Your task to perform on an android device: open chrome privacy settings Image 0: 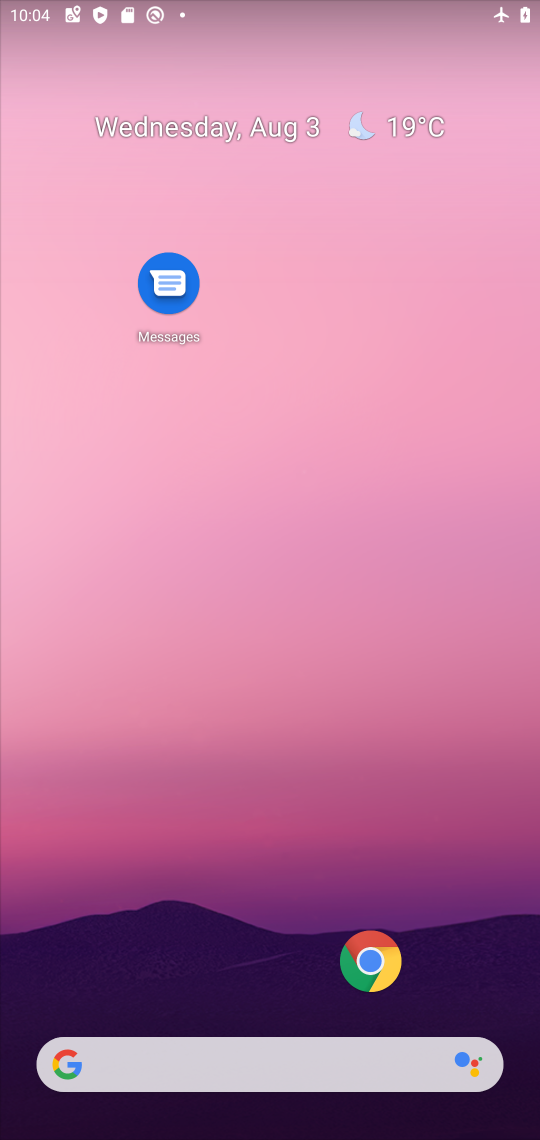
Step 0: click (377, 973)
Your task to perform on an android device: open chrome privacy settings Image 1: 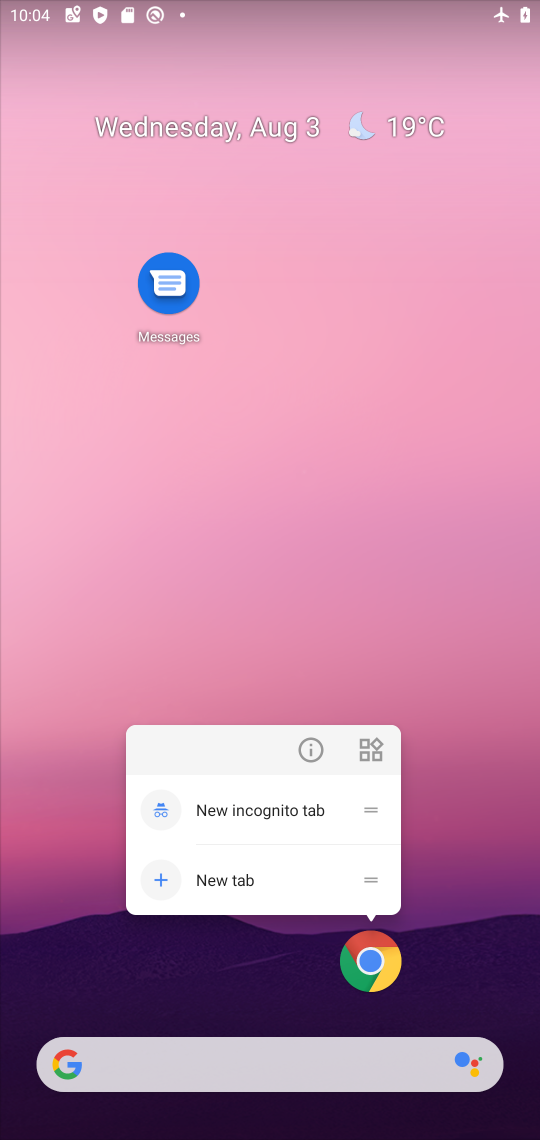
Step 1: click (364, 952)
Your task to perform on an android device: open chrome privacy settings Image 2: 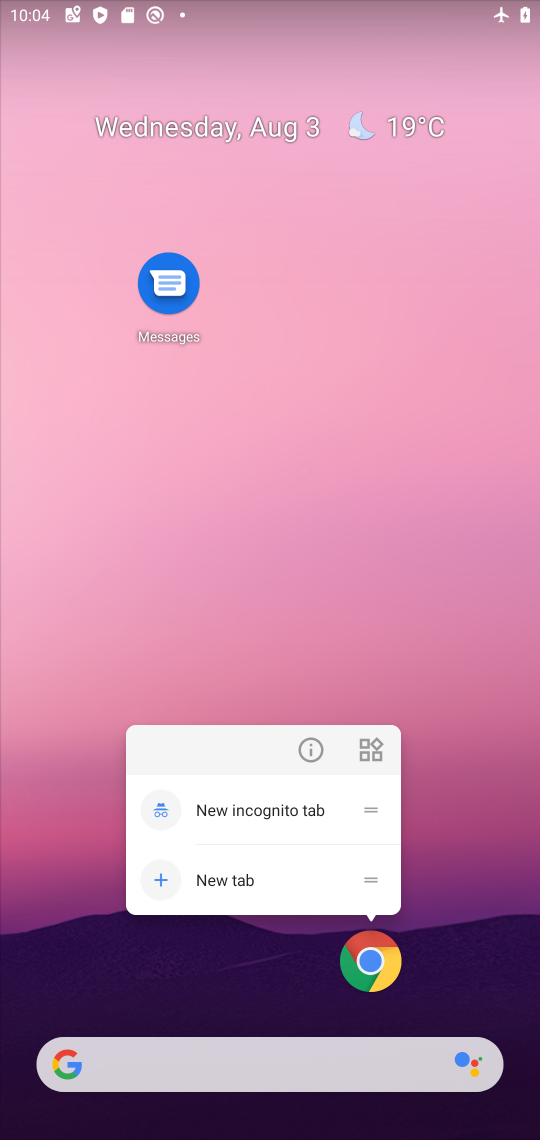
Step 2: click (364, 952)
Your task to perform on an android device: open chrome privacy settings Image 3: 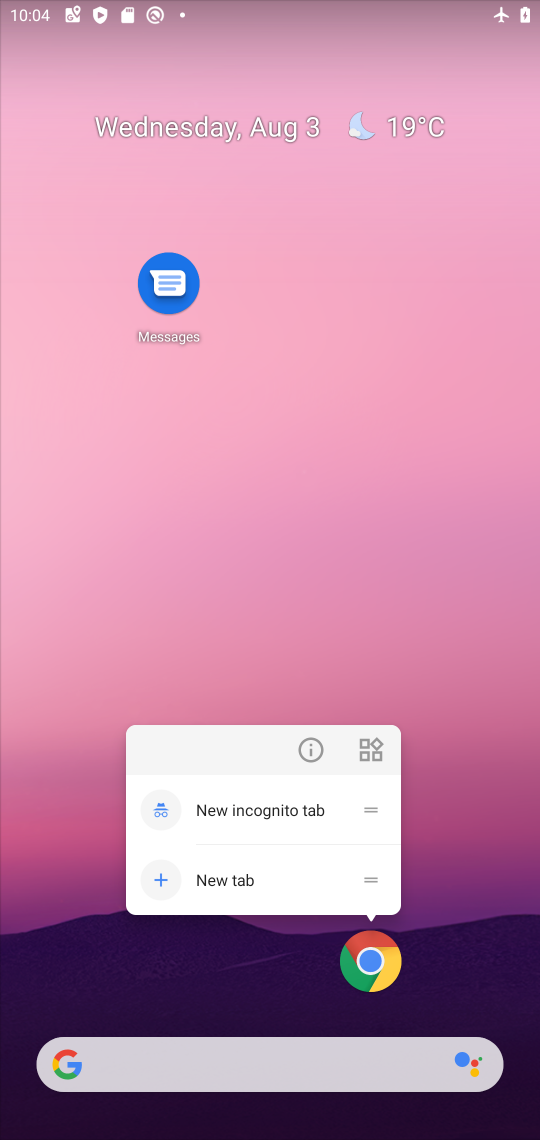
Step 3: click (424, 504)
Your task to perform on an android device: open chrome privacy settings Image 4: 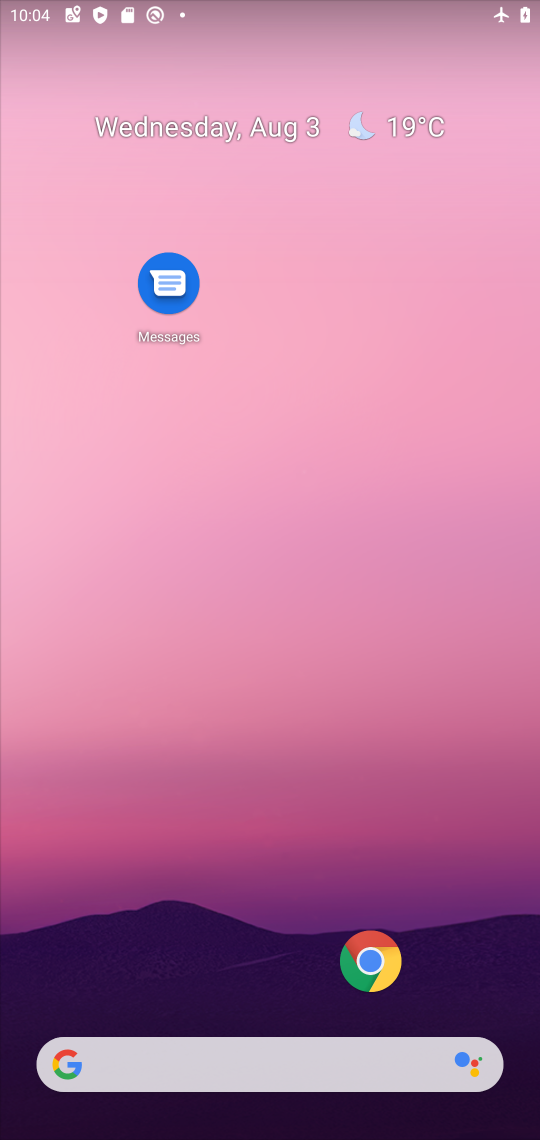
Step 4: drag from (298, 1025) to (407, 4)
Your task to perform on an android device: open chrome privacy settings Image 5: 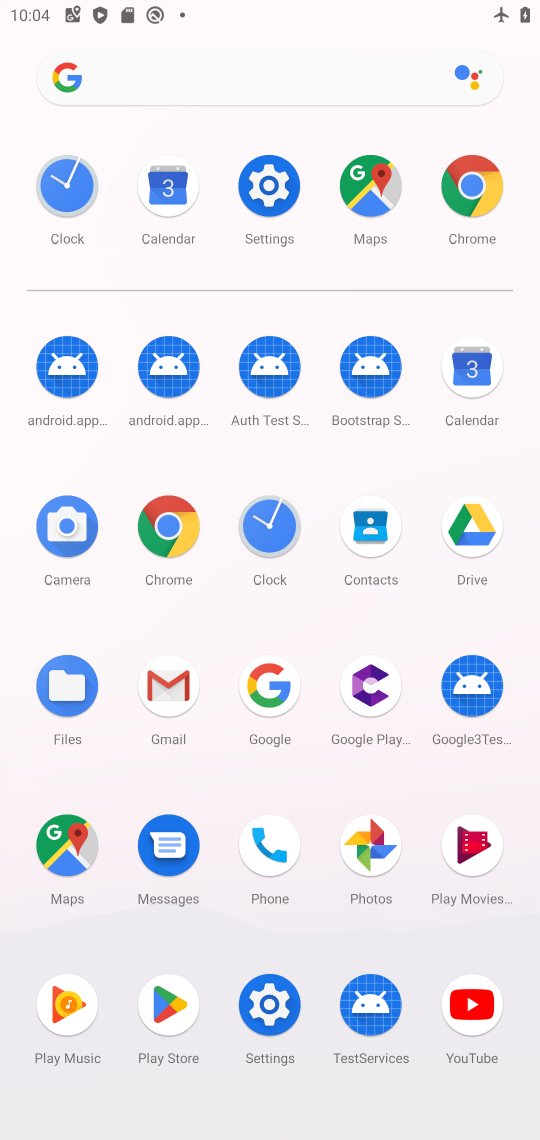
Step 5: click (488, 215)
Your task to perform on an android device: open chrome privacy settings Image 6: 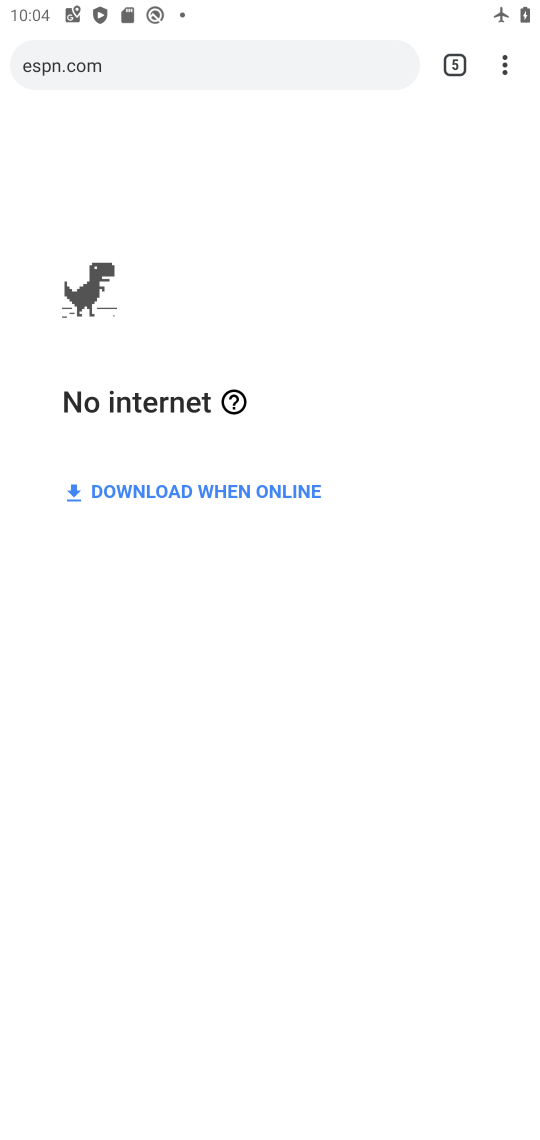
Step 6: drag from (500, 62) to (262, 728)
Your task to perform on an android device: open chrome privacy settings Image 7: 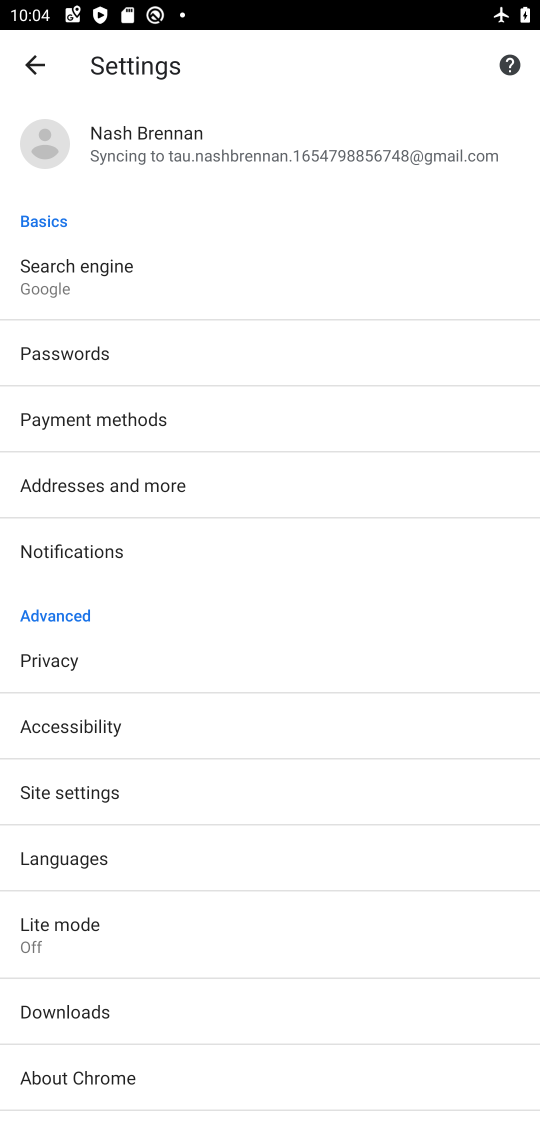
Step 7: click (103, 652)
Your task to perform on an android device: open chrome privacy settings Image 8: 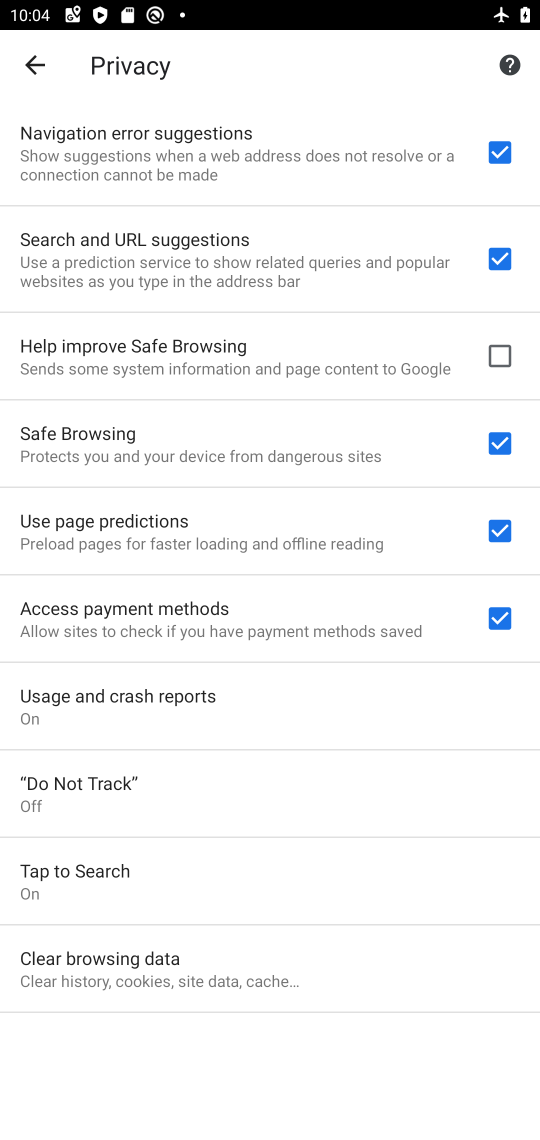
Step 8: task complete